Your task to perform on an android device: turn on data saver in the chrome app Image 0: 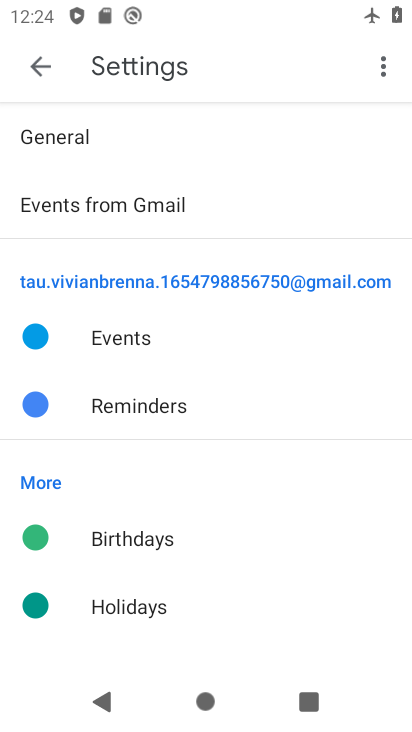
Step 0: press home button
Your task to perform on an android device: turn on data saver in the chrome app Image 1: 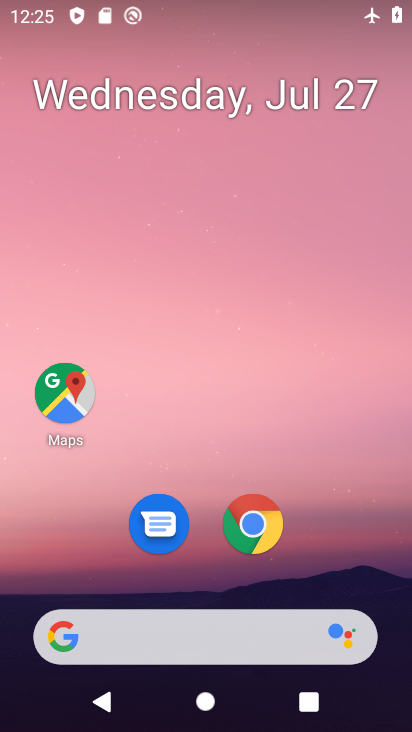
Step 1: click (256, 516)
Your task to perform on an android device: turn on data saver in the chrome app Image 2: 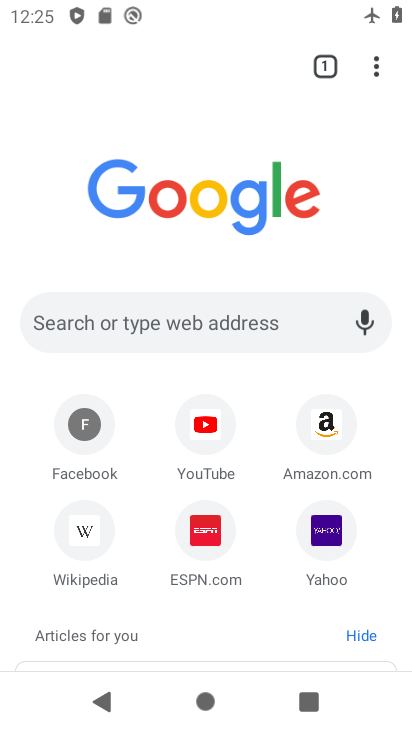
Step 2: click (377, 61)
Your task to perform on an android device: turn on data saver in the chrome app Image 3: 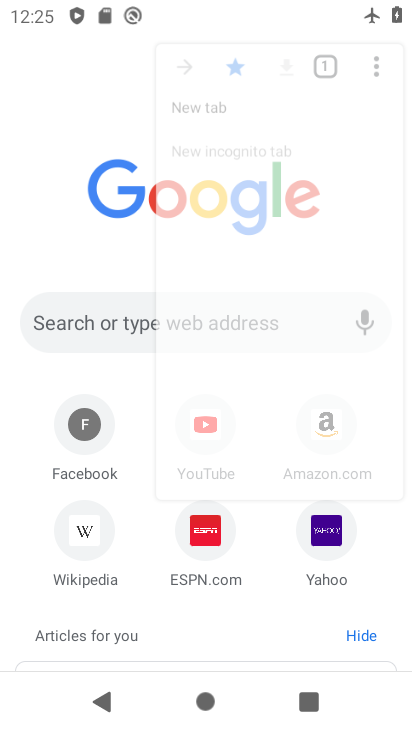
Step 3: click (377, 61)
Your task to perform on an android device: turn on data saver in the chrome app Image 4: 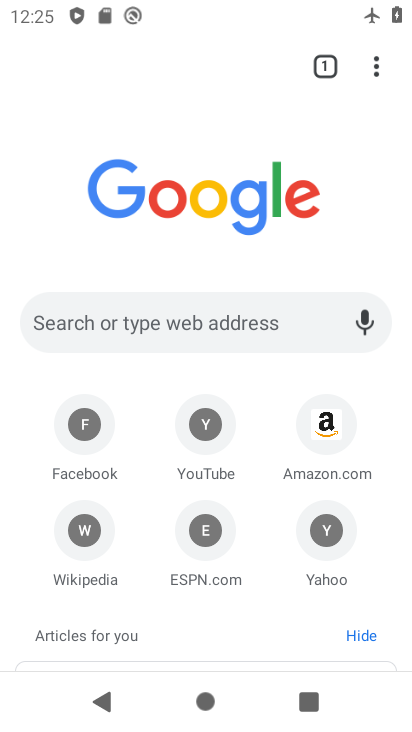
Step 4: click (377, 61)
Your task to perform on an android device: turn on data saver in the chrome app Image 5: 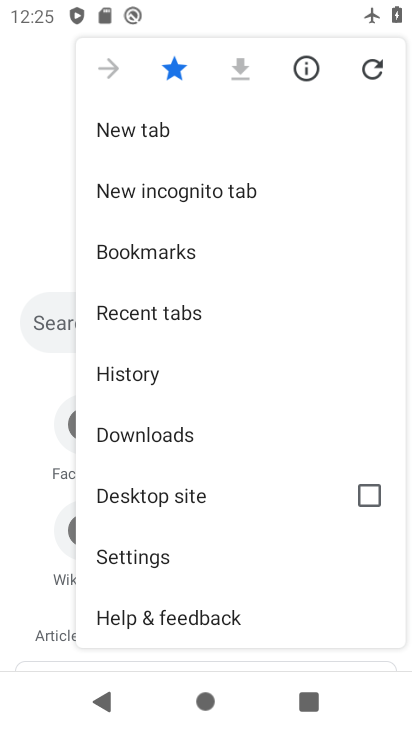
Step 5: click (160, 558)
Your task to perform on an android device: turn on data saver in the chrome app Image 6: 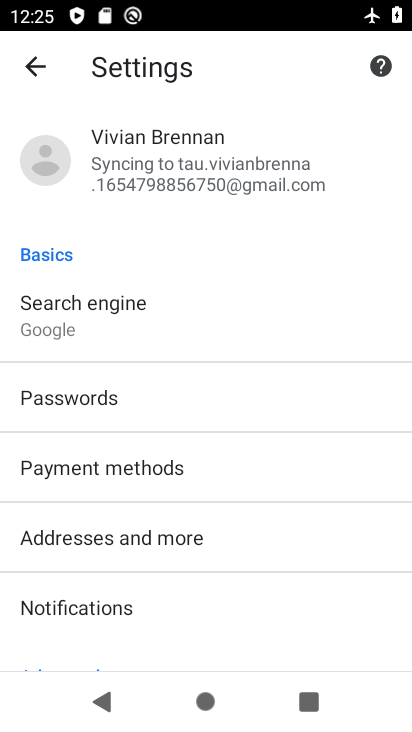
Step 6: drag from (177, 546) to (181, 162)
Your task to perform on an android device: turn on data saver in the chrome app Image 7: 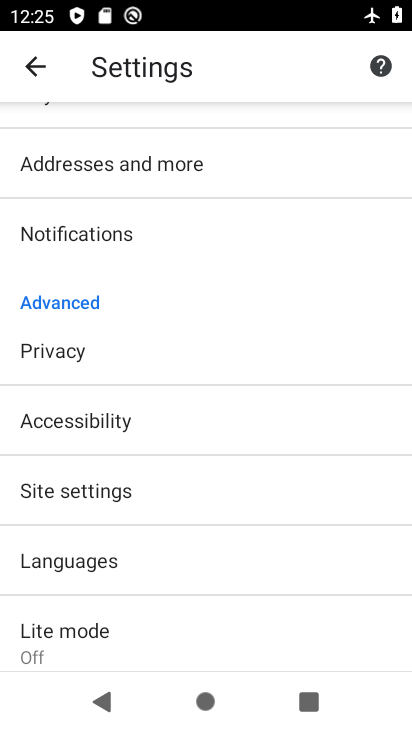
Step 7: click (100, 625)
Your task to perform on an android device: turn on data saver in the chrome app Image 8: 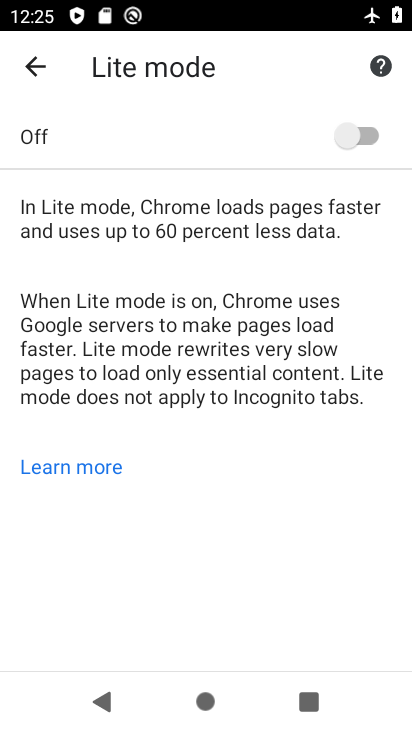
Step 8: click (364, 123)
Your task to perform on an android device: turn on data saver in the chrome app Image 9: 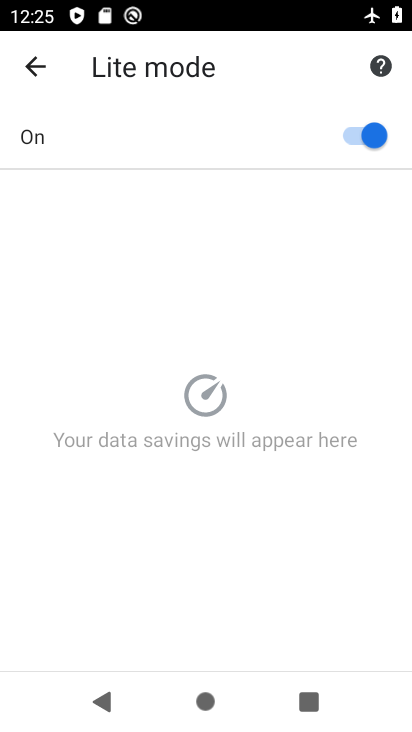
Step 9: task complete